Your task to perform on an android device: toggle notifications settings in the gmail app Image 0: 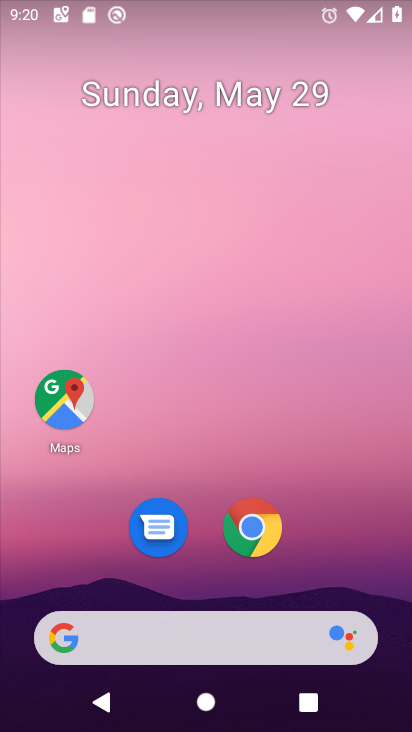
Step 0: press home button
Your task to perform on an android device: toggle notifications settings in the gmail app Image 1: 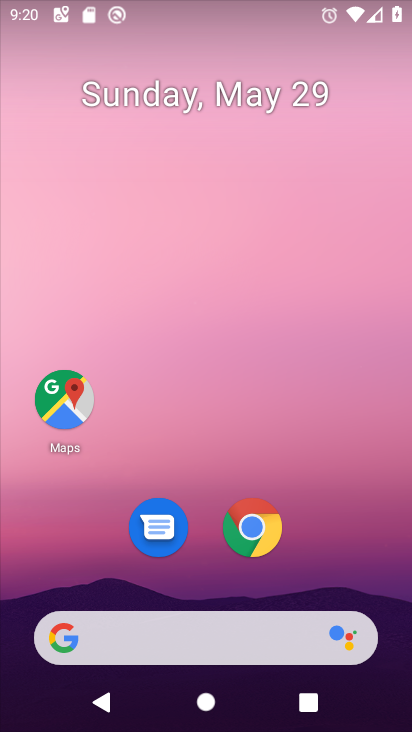
Step 1: drag from (211, 580) to (229, 120)
Your task to perform on an android device: toggle notifications settings in the gmail app Image 2: 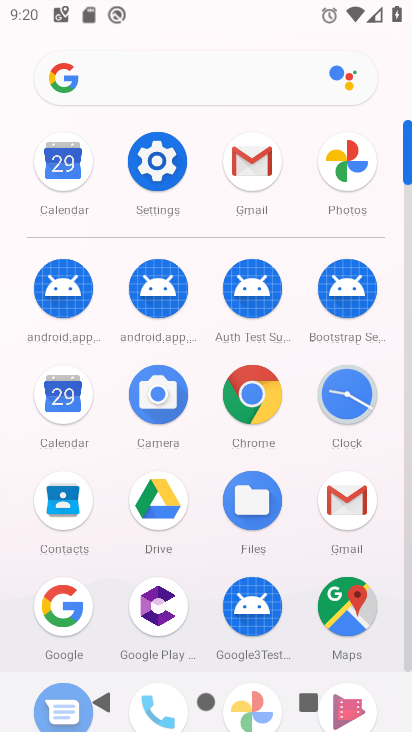
Step 2: click (241, 153)
Your task to perform on an android device: toggle notifications settings in the gmail app Image 3: 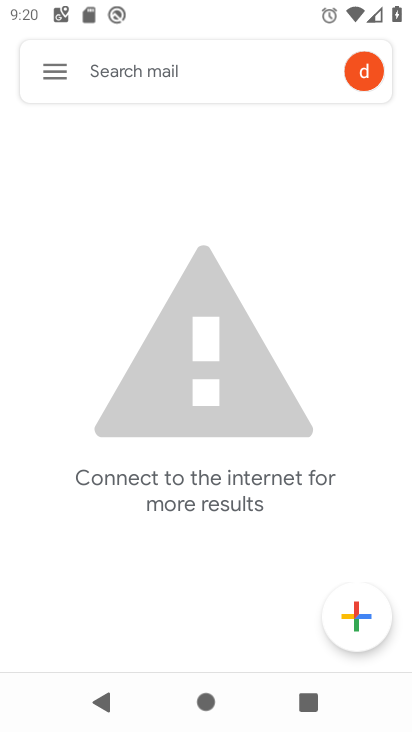
Step 3: click (53, 66)
Your task to perform on an android device: toggle notifications settings in the gmail app Image 4: 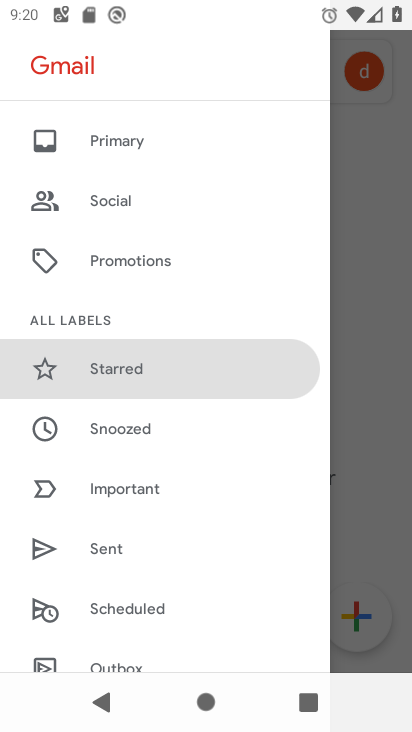
Step 4: drag from (188, 629) to (174, 57)
Your task to perform on an android device: toggle notifications settings in the gmail app Image 5: 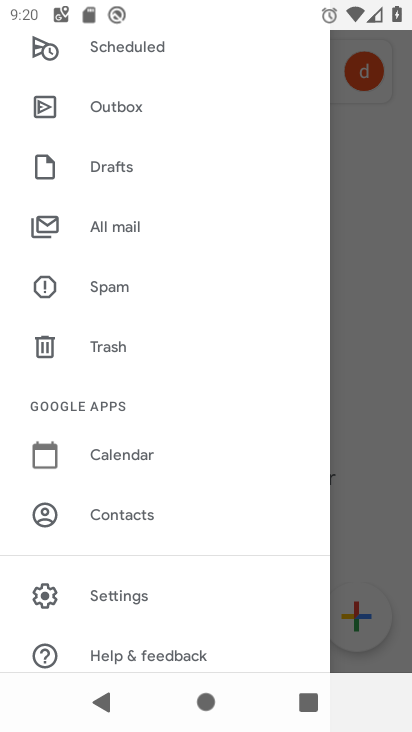
Step 5: click (155, 594)
Your task to perform on an android device: toggle notifications settings in the gmail app Image 6: 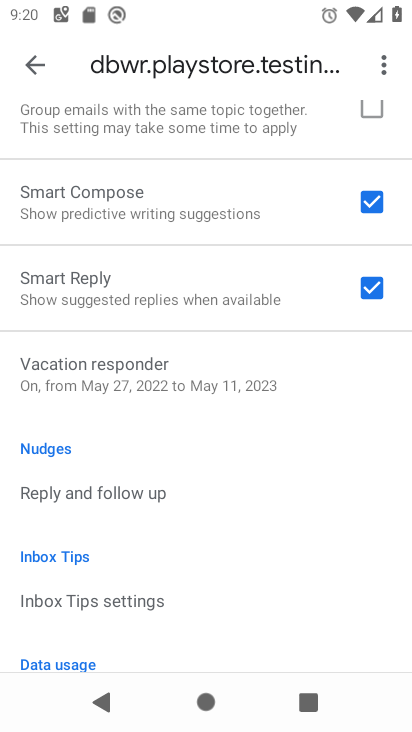
Step 6: click (30, 63)
Your task to perform on an android device: toggle notifications settings in the gmail app Image 7: 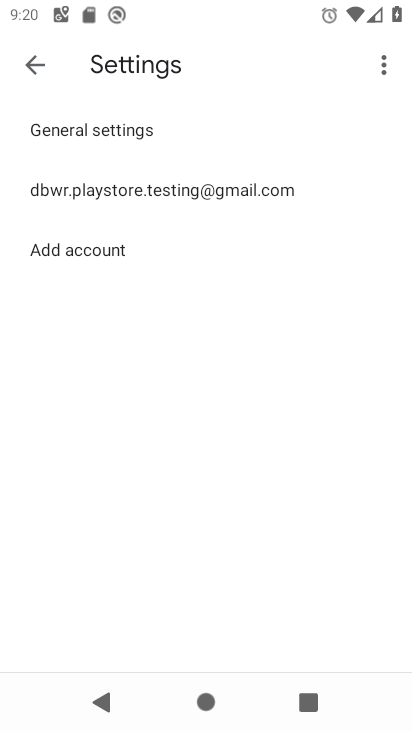
Step 7: click (171, 124)
Your task to perform on an android device: toggle notifications settings in the gmail app Image 8: 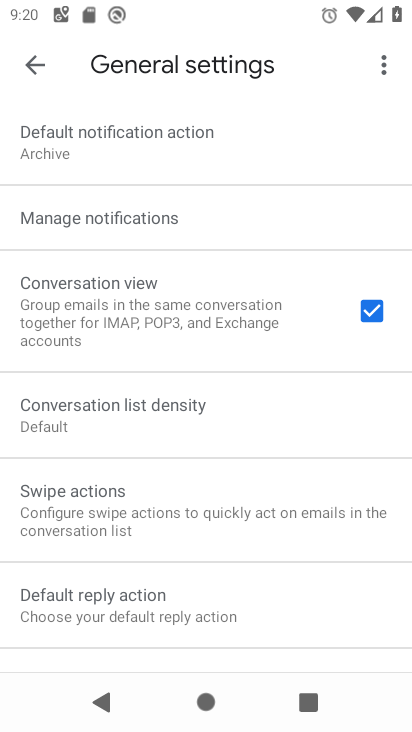
Step 8: click (201, 213)
Your task to perform on an android device: toggle notifications settings in the gmail app Image 9: 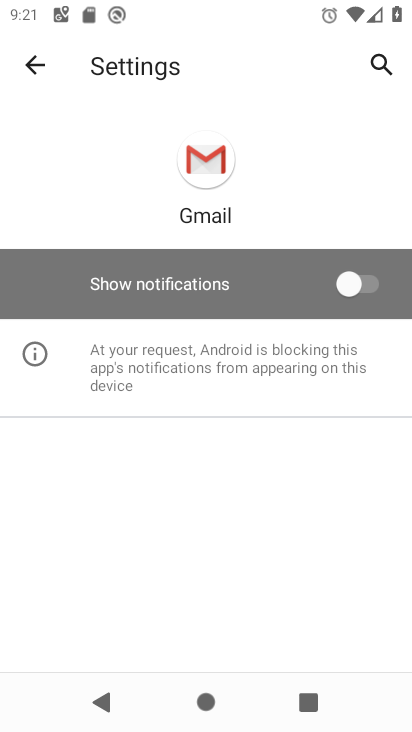
Step 9: click (360, 278)
Your task to perform on an android device: toggle notifications settings in the gmail app Image 10: 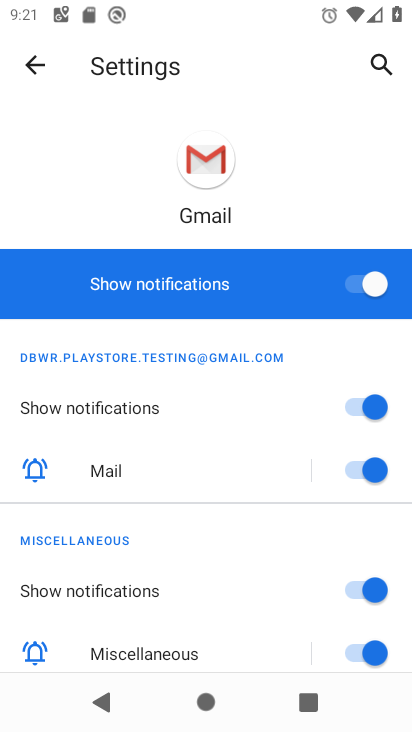
Step 10: task complete